Your task to perform on an android device: change alarm snooze length Image 0: 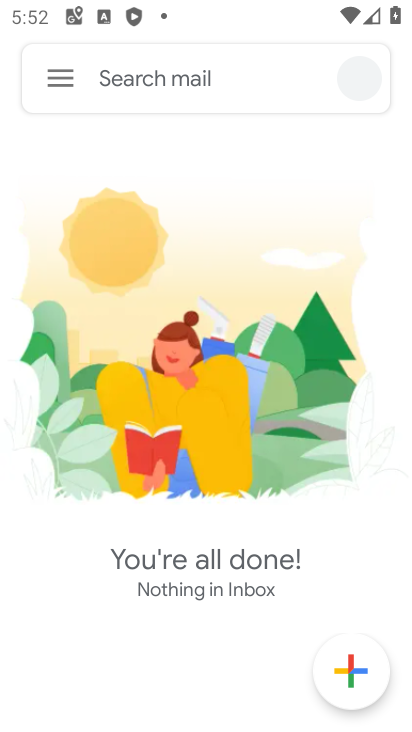
Step 0: press home button
Your task to perform on an android device: change alarm snooze length Image 1: 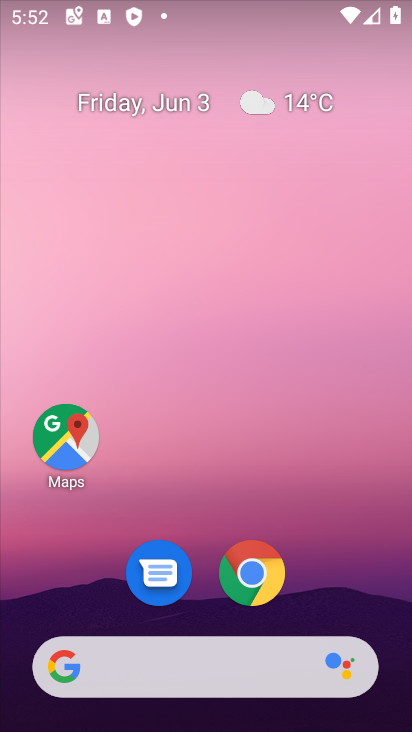
Step 1: drag from (286, 656) to (316, 8)
Your task to perform on an android device: change alarm snooze length Image 2: 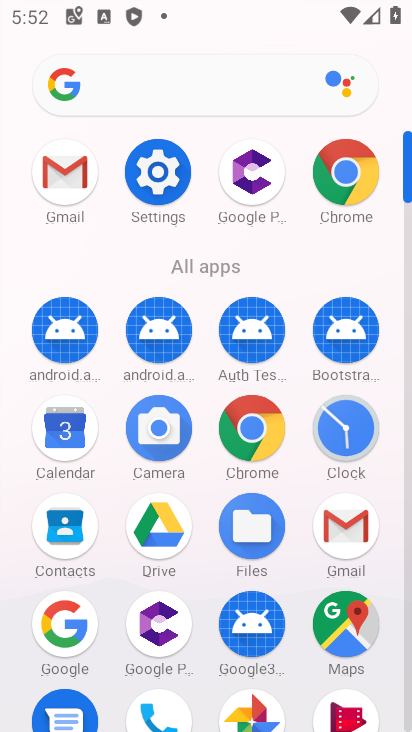
Step 2: click (337, 422)
Your task to perform on an android device: change alarm snooze length Image 3: 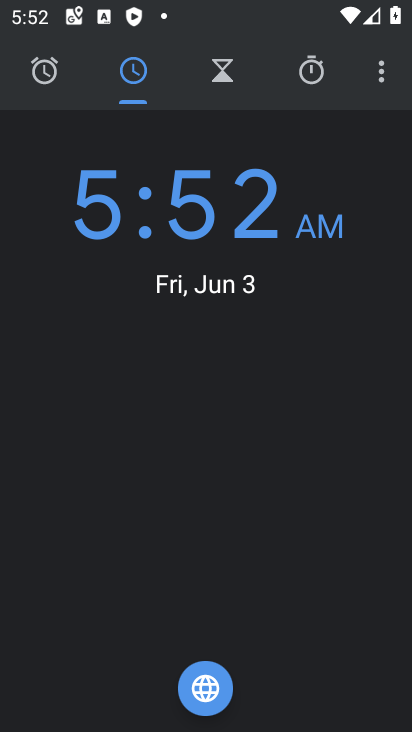
Step 3: click (392, 79)
Your task to perform on an android device: change alarm snooze length Image 4: 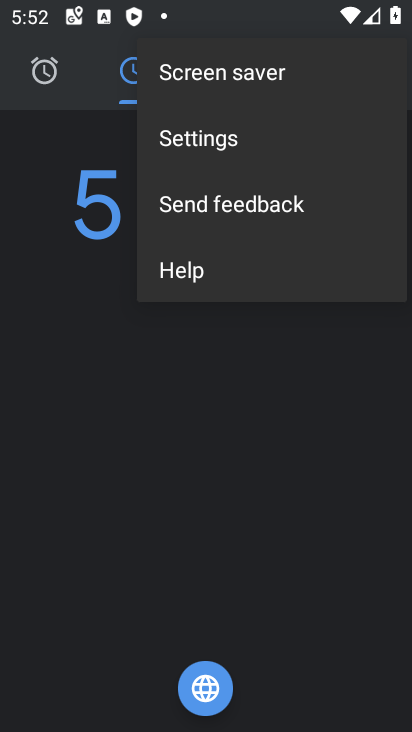
Step 4: click (226, 152)
Your task to perform on an android device: change alarm snooze length Image 5: 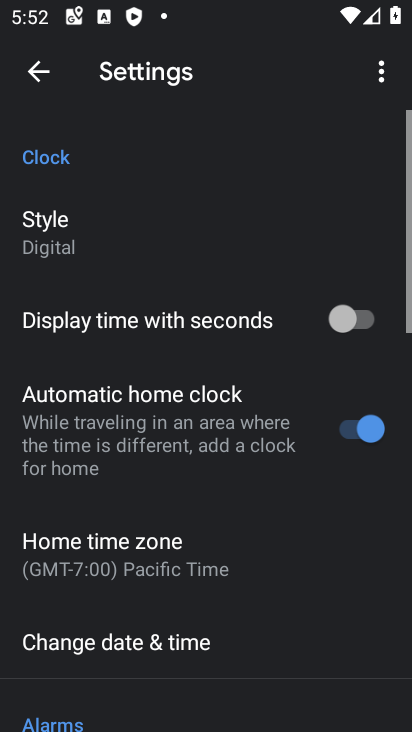
Step 5: drag from (256, 695) to (275, 147)
Your task to perform on an android device: change alarm snooze length Image 6: 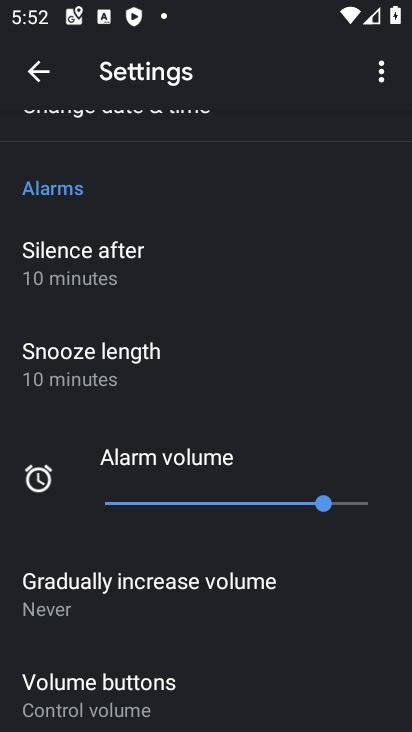
Step 6: click (135, 279)
Your task to perform on an android device: change alarm snooze length Image 7: 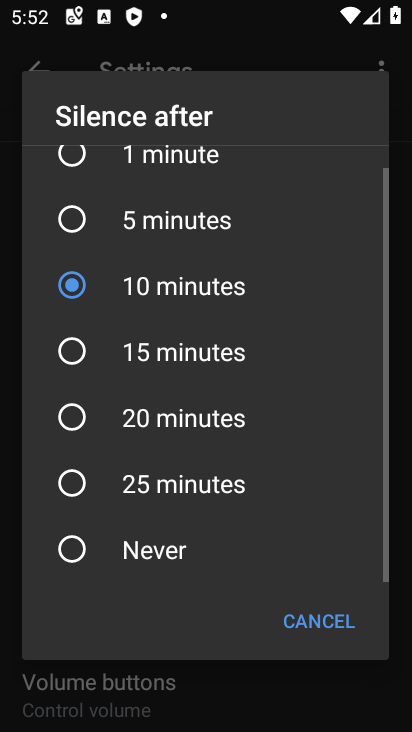
Step 7: press back button
Your task to perform on an android device: change alarm snooze length Image 8: 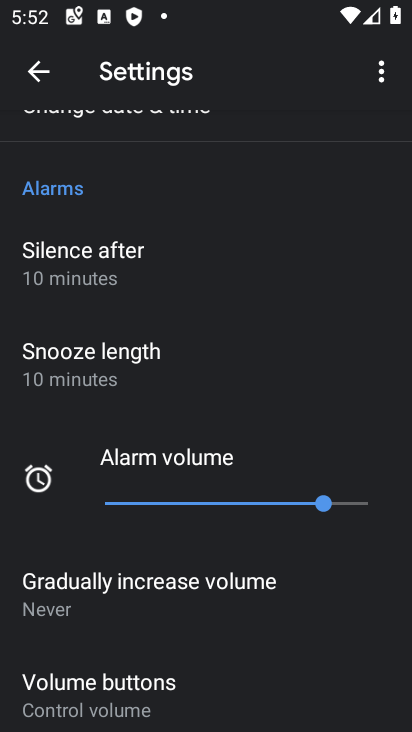
Step 8: click (233, 370)
Your task to perform on an android device: change alarm snooze length Image 9: 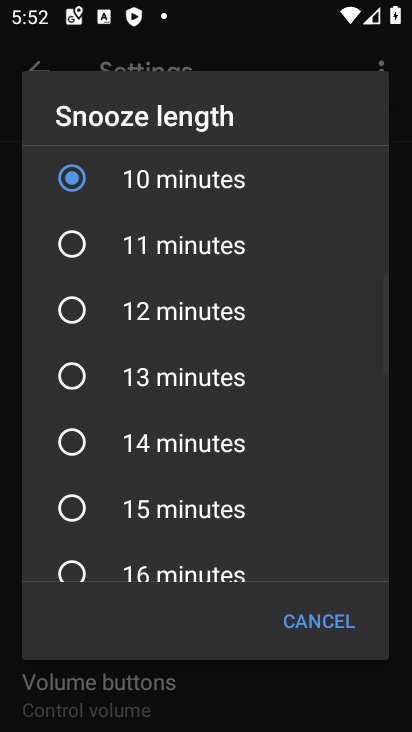
Step 9: click (71, 247)
Your task to perform on an android device: change alarm snooze length Image 10: 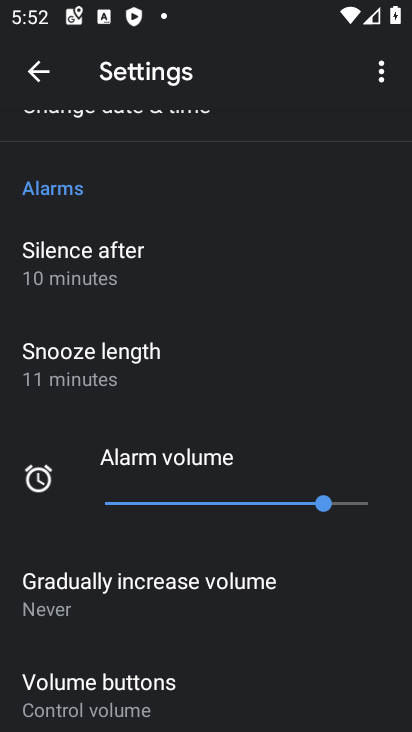
Step 10: task complete